Your task to perform on an android device: toggle translation in the chrome app Image 0: 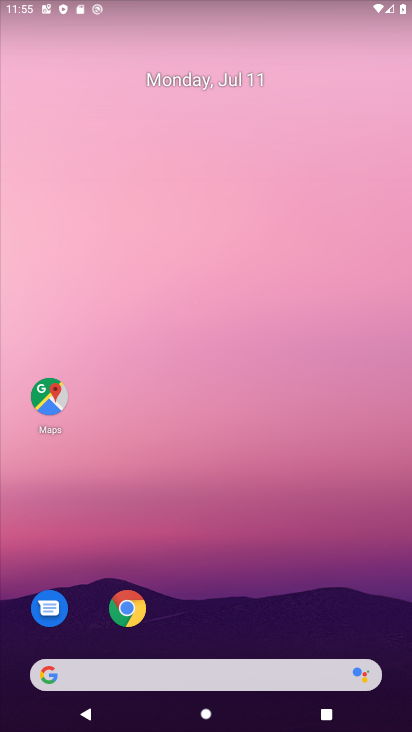
Step 0: click (134, 613)
Your task to perform on an android device: toggle translation in the chrome app Image 1: 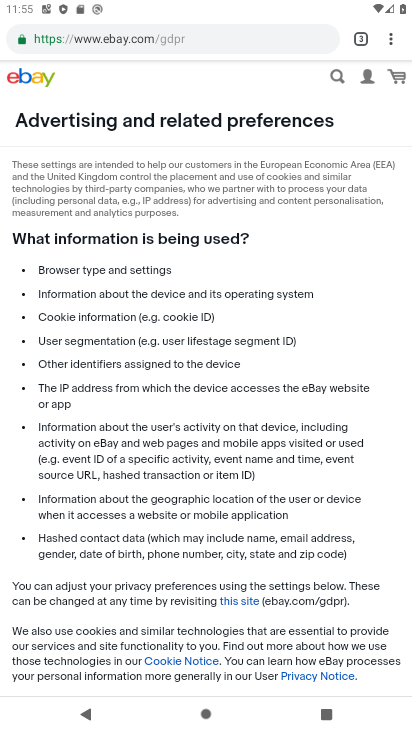
Step 1: click (389, 48)
Your task to perform on an android device: toggle translation in the chrome app Image 2: 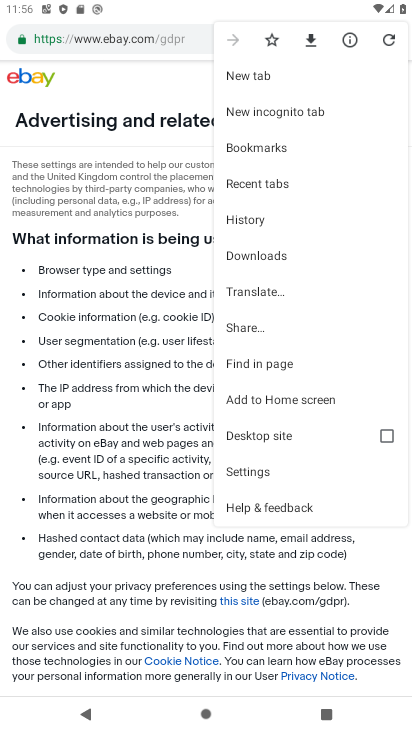
Step 2: click (288, 476)
Your task to perform on an android device: toggle translation in the chrome app Image 3: 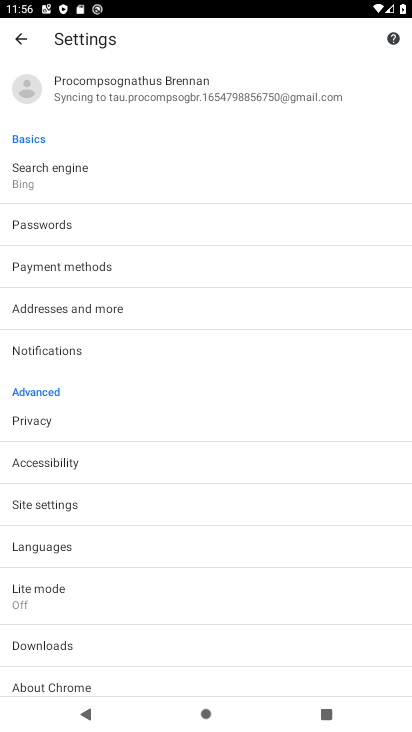
Step 3: click (95, 548)
Your task to perform on an android device: toggle translation in the chrome app Image 4: 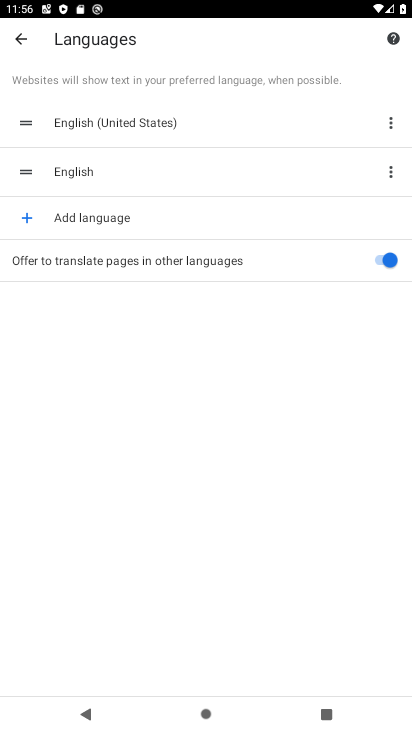
Step 4: click (386, 262)
Your task to perform on an android device: toggle translation in the chrome app Image 5: 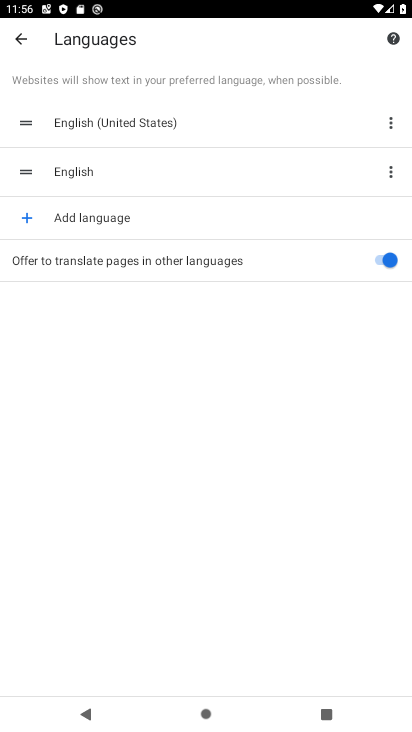
Step 5: click (386, 262)
Your task to perform on an android device: toggle translation in the chrome app Image 6: 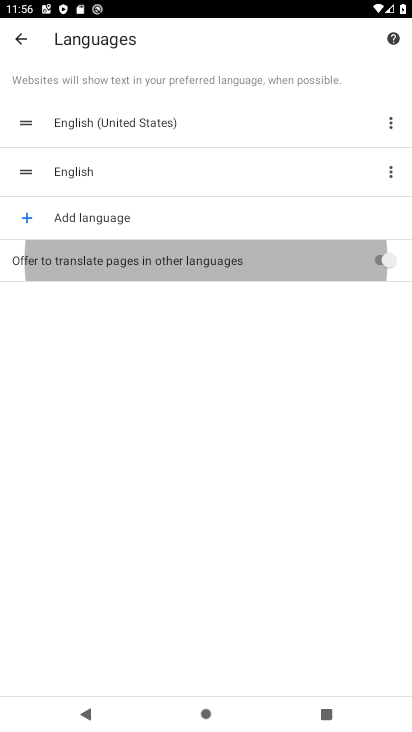
Step 6: click (386, 262)
Your task to perform on an android device: toggle translation in the chrome app Image 7: 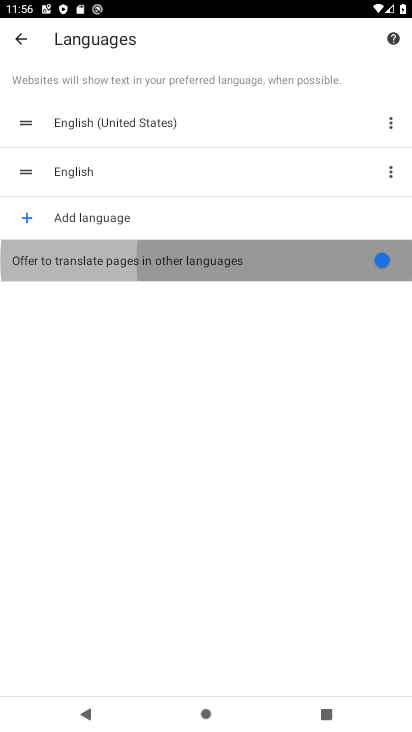
Step 7: click (386, 262)
Your task to perform on an android device: toggle translation in the chrome app Image 8: 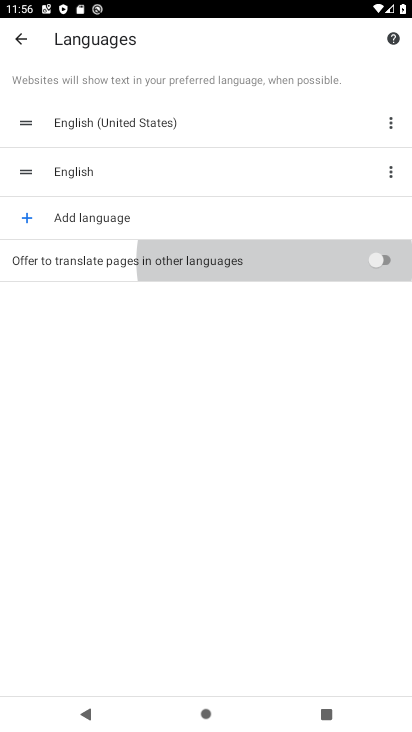
Step 8: click (386, 262)
Your task to perform on an android device: toggle translation in the chrome app Image 9: 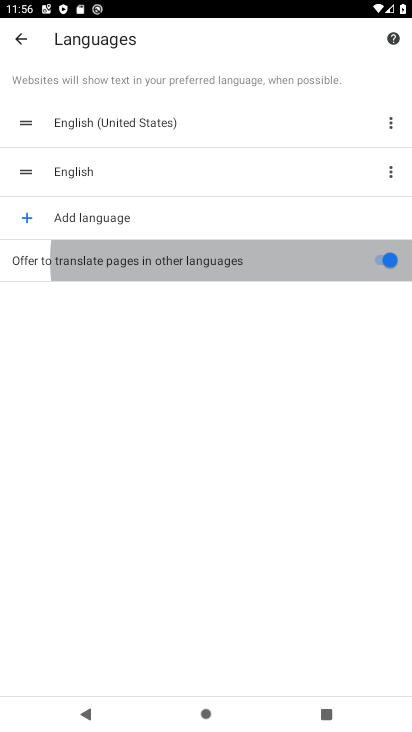
Step 9: click (386, 262)
Your task to perform on an android device: toggle translation in the chrome app Image 10: 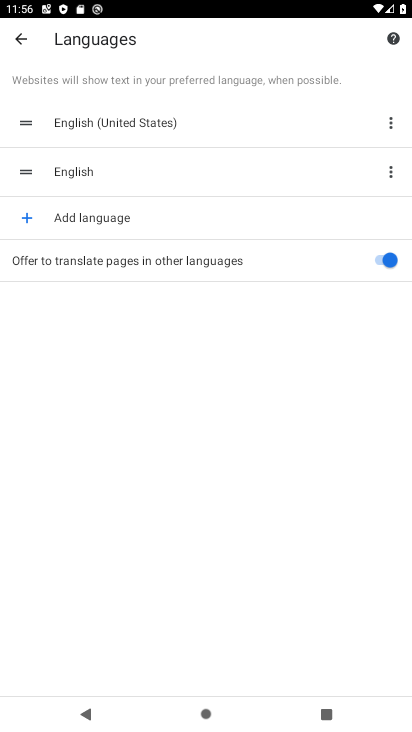
Step 10: click (386, 262)
Your task to perform on an android device: toggle translation in the chrome app Image 11: 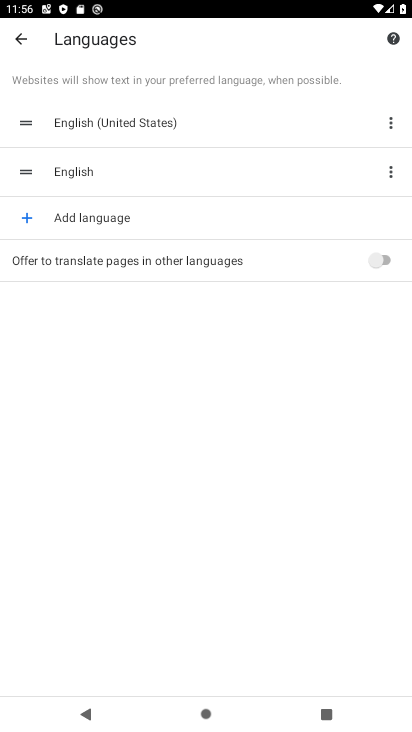
Step 11: task complete